Your task to perform on an android device: change the clock display to show seconds Image 0: 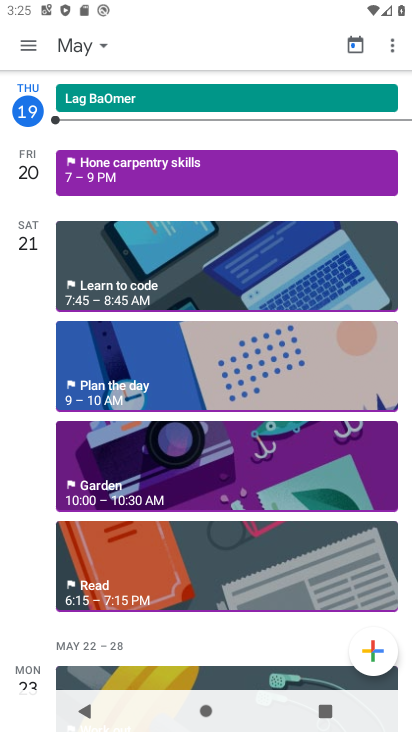
Step 0: press home button
Your task to perform on an android device: change the clock display to show seconds Image 1: 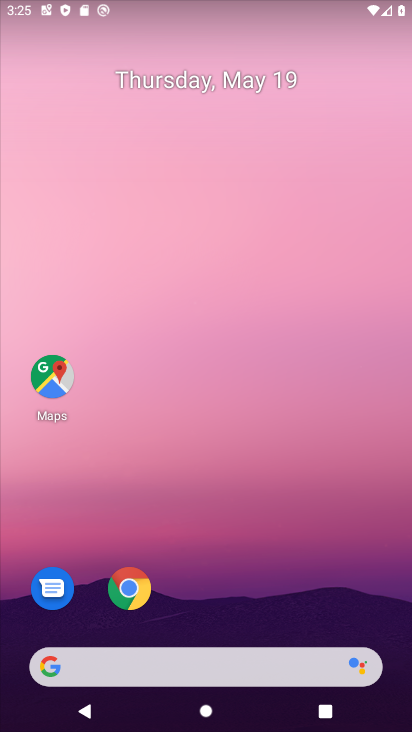
Step 1: drag from (226, 609) to (340, 1)
Your task to perform on an android device: change the clock display to show seconds Image 2: 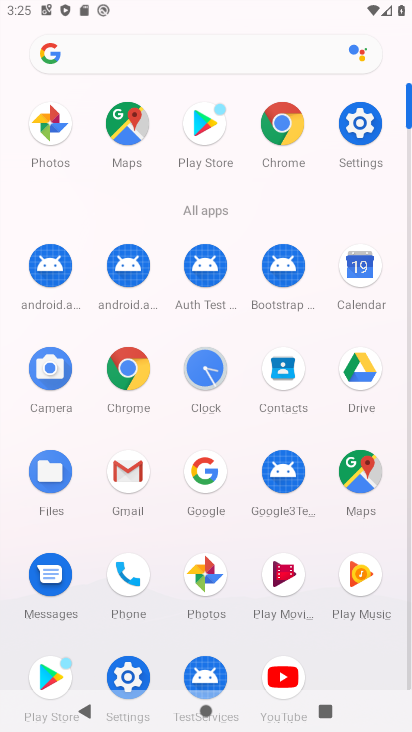
Step 2: click (198, 362)
Your task to perform on an android device: change the clock display to show seconds Image 3: 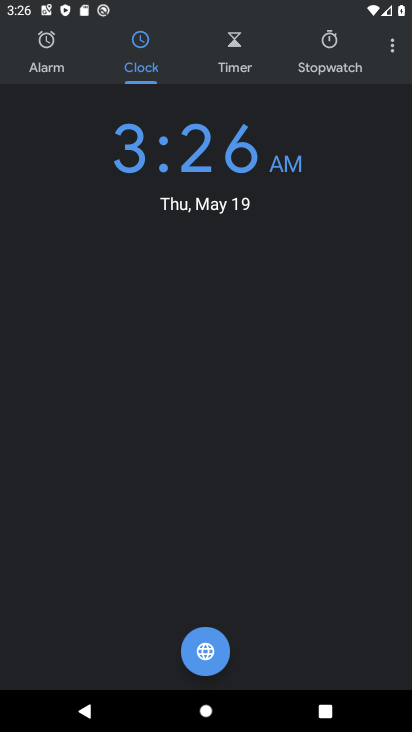
Step 3: click (398, 41)
Your task to perform on an android device: change the clock display to show seconds Image 4: 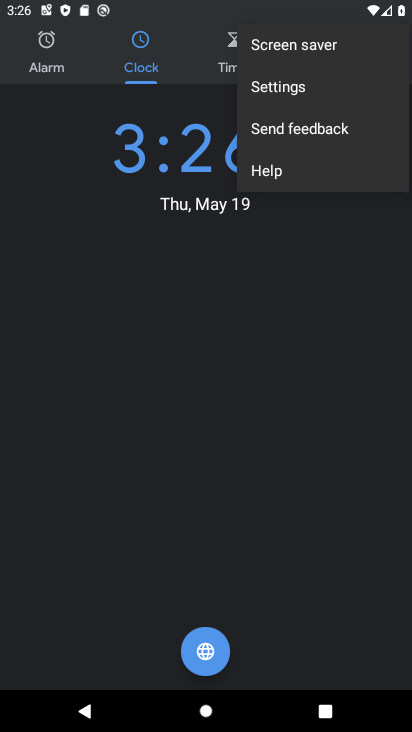
Step 4: click (300, 84)
Your task to perform on an android device: change the clock display to show seconds Image 5: 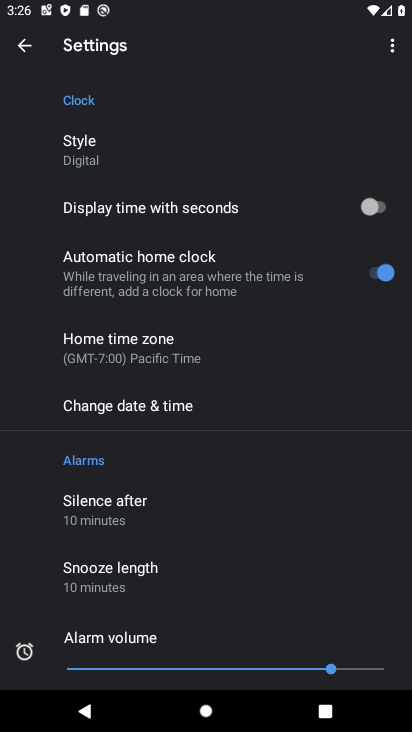
Step 5: click (374, 214)
Your task to perform on an android device: change the clock display to show seconds Image 6: 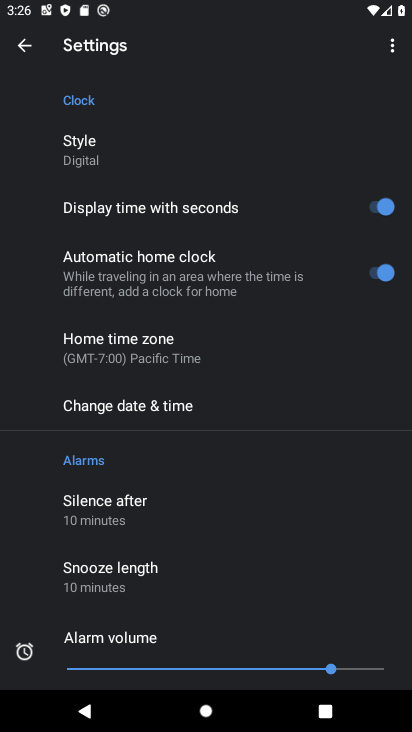
Step 6: task complete